Your task to perform on an android device: How big is a dinosaur? Image 0: 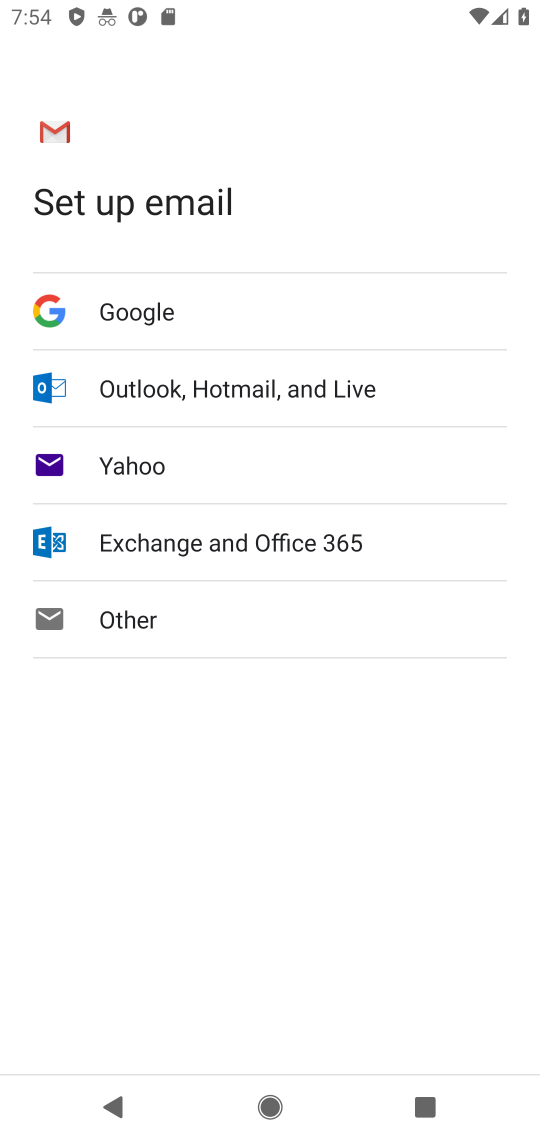
Step 0: press home button
Your task to perform on an android device: How big is a dinosaur? Image 1: 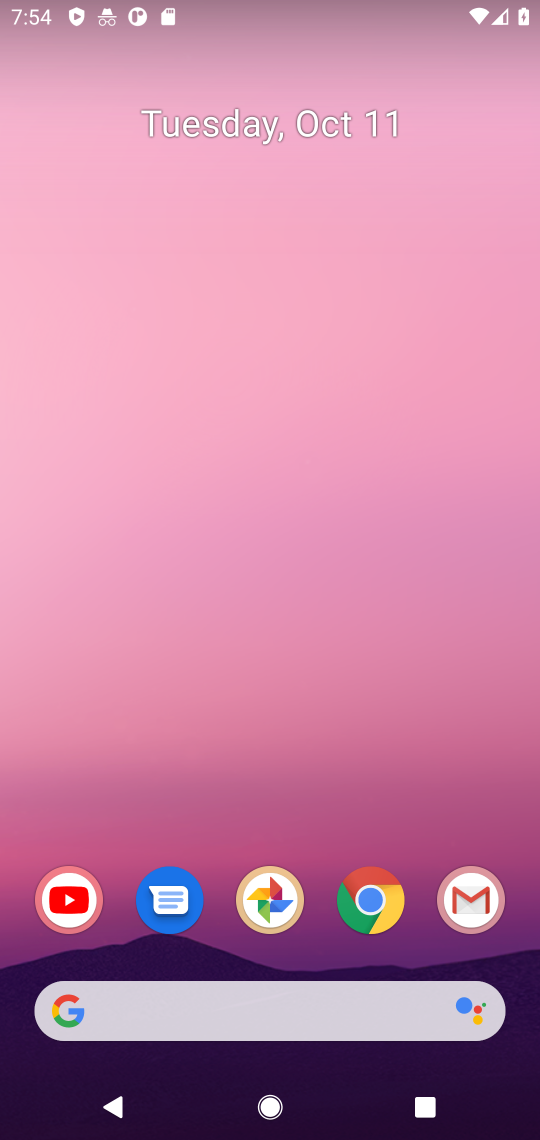
Step 1: click (376, 908)
Your task to perform on an android device: How big is a dinosaur? Image 2: 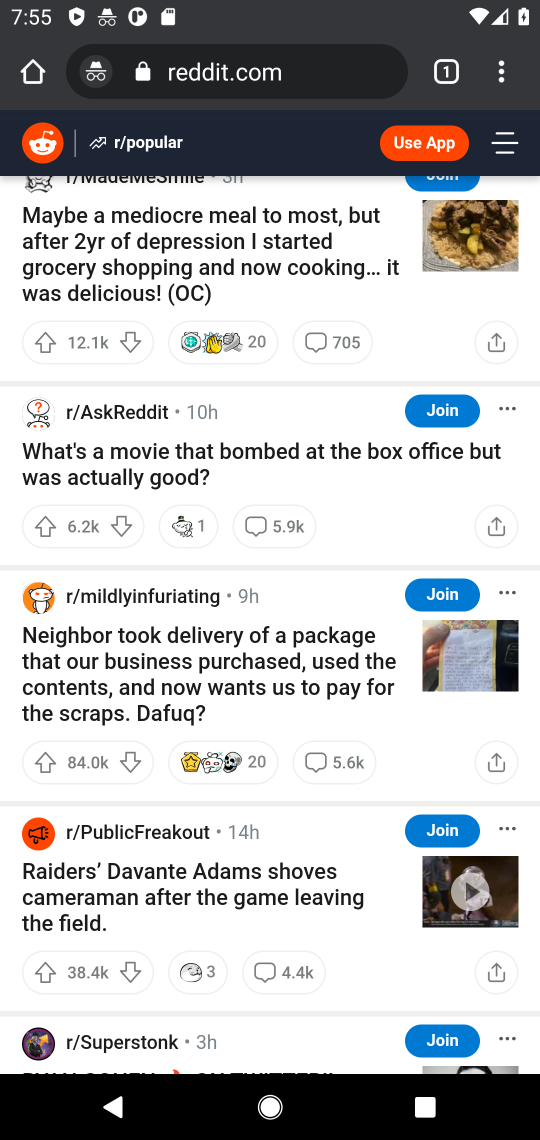
Step 2: drag from (463, 1135) to (384, 844)
Your task to perform on an android device: How big is a dinosaur? Image 3: 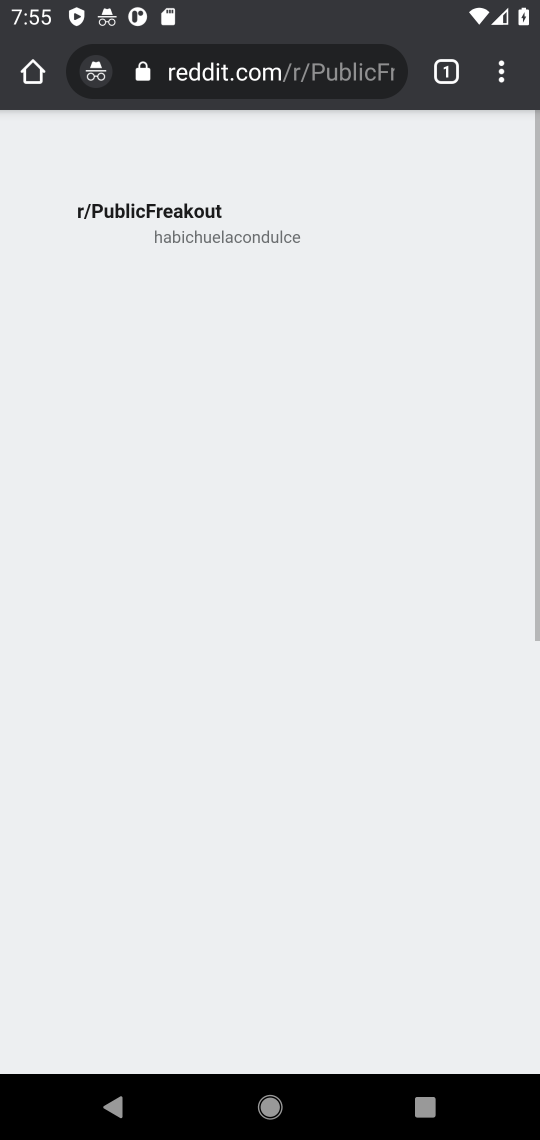
Step 3: click (255, 76)
Your task to perform on an android device: How big is a dinosaur? Image 4: 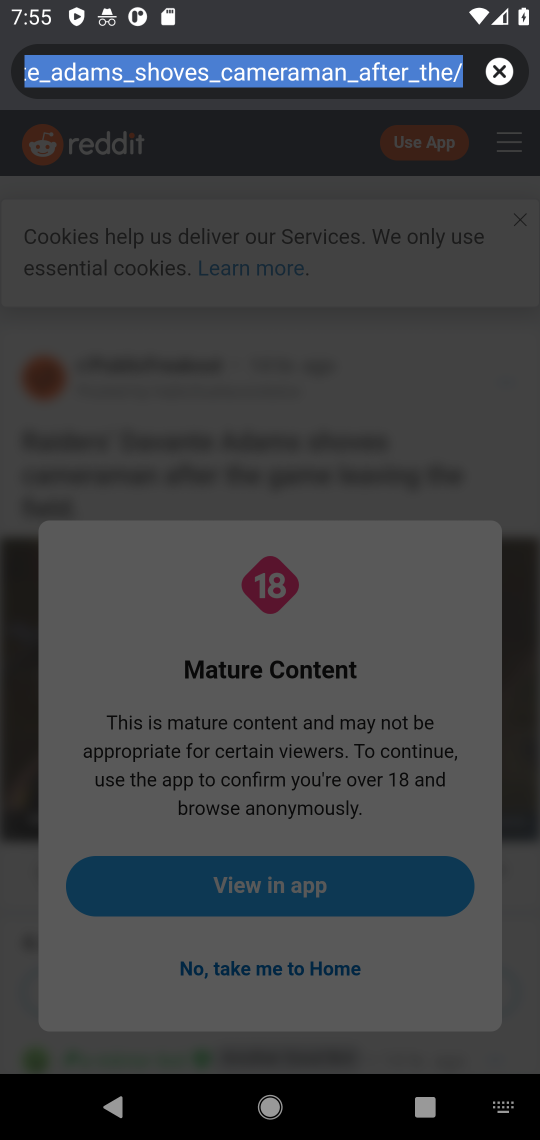
Step 4: type "How big is a dinosaur?"
Your task to perform on an android device: How big is a dinosaur? Image 5: 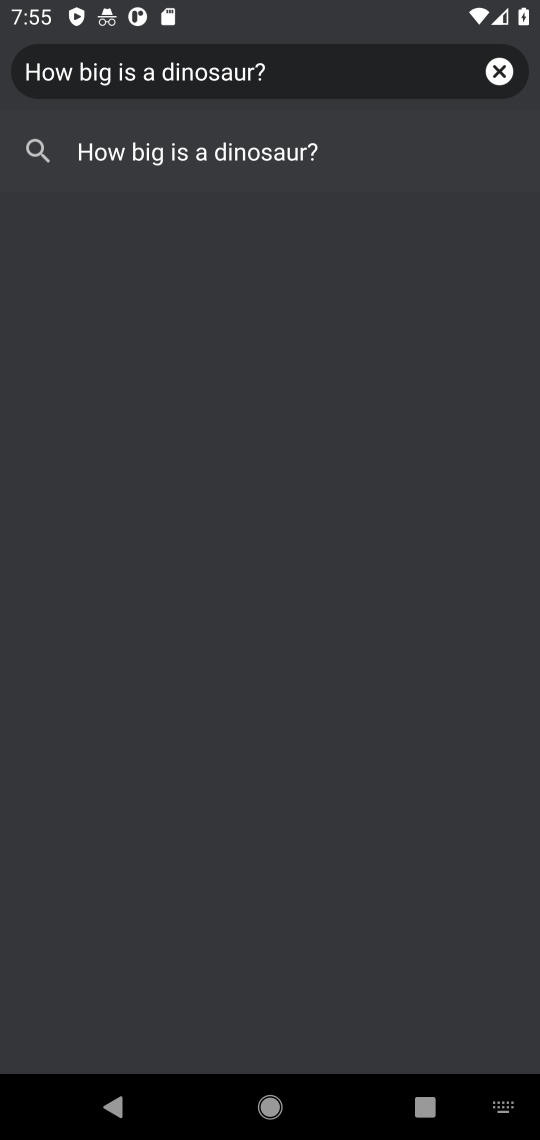
Step 5: click (341, 139)
Your task to perform on an android device: How big is a dinosaur? Image 6: 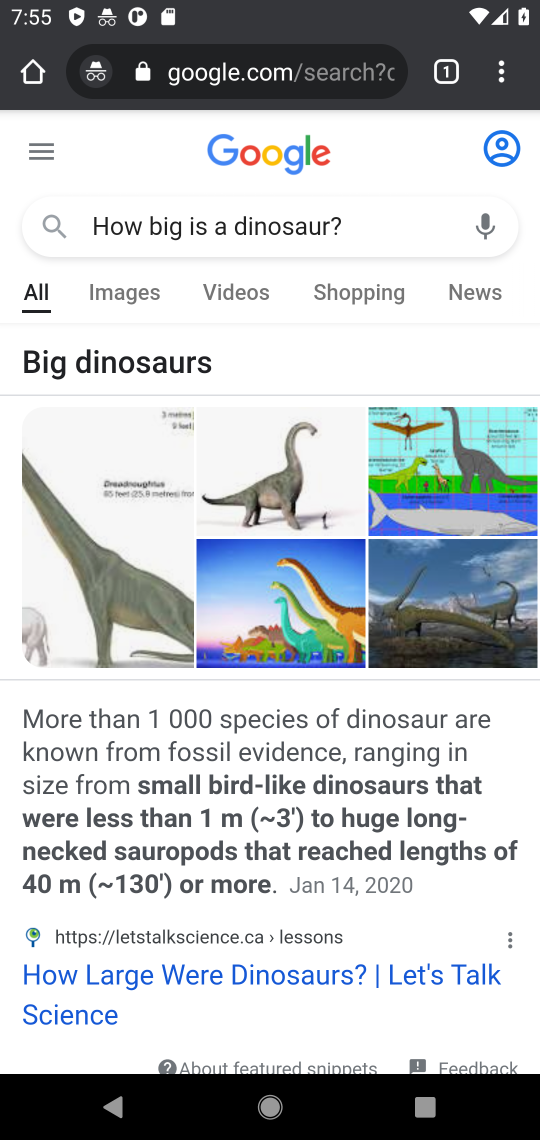
Step 6: task complete